Your task to perform on an android device: Open Youtube and go to the subscriptions tab Image 0: 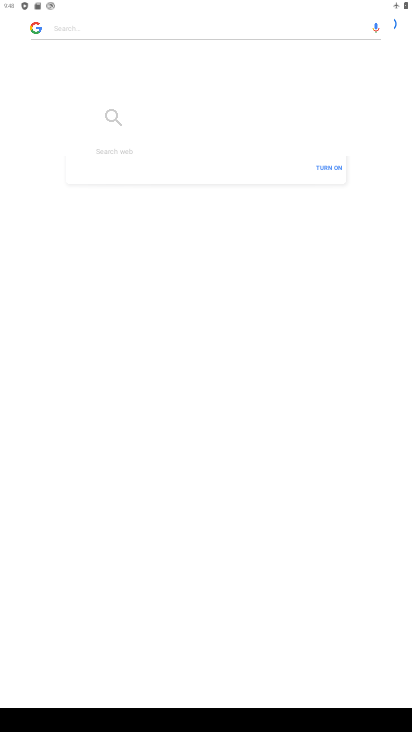
Step 0: press home button
Your task to perform on an android device: Open Youtube and go to the subscriptions tab Image 1: 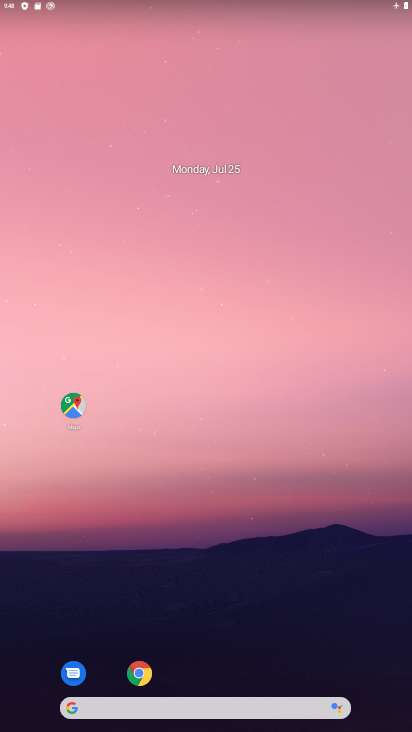
Step 1: drag from (297, 643) to (272, 19)
Your task to perform on an android device: Open Youtube and go to the subscriptions tab Image 2: 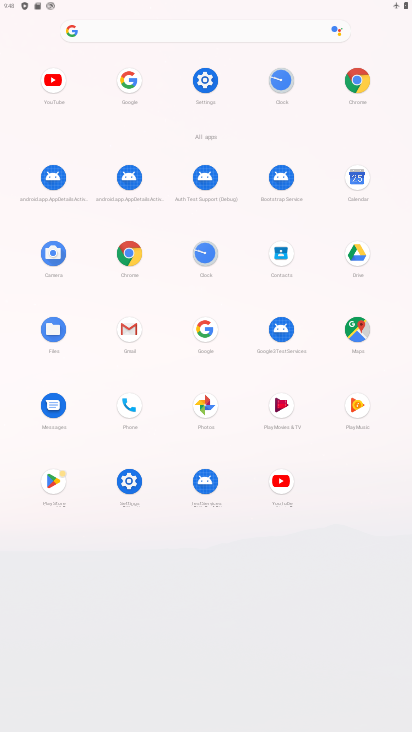
Step 2: click (276, 478)
Your task to perform on an android device: Open Youtube and go to the subscriptions tab Image 3: 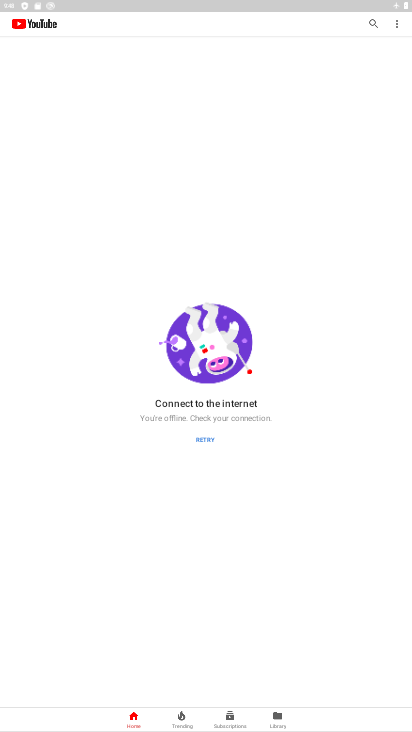
Step 3: click (227, 708)
Your task to perform on an android device: Open Youtube and go to the subscriptions tab Image 4: 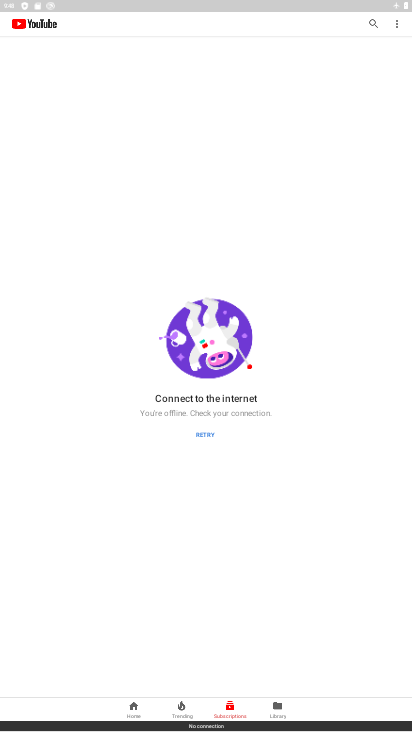
Step 4: task complete